Your task to perform on an android device: When is my next appointment? Image 0: 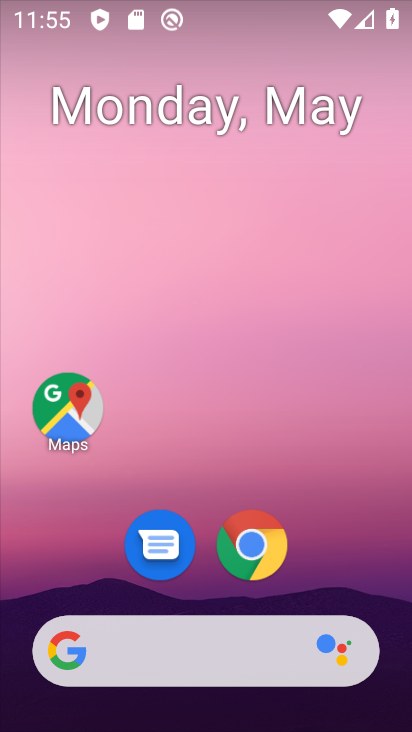
Step 0: drag from (349, 559) to (292, 170)
Your task to perform on an android device: When is my next appointment? Image 1: 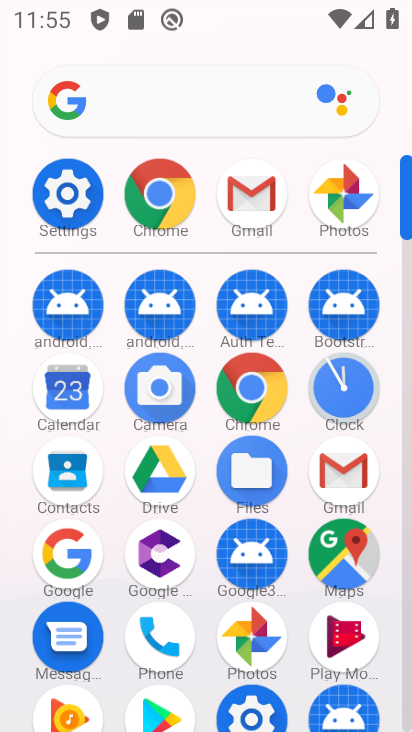
Step 1: click (61, 397)
Your task to perform on an android device: When is my next appointment? Image 2: 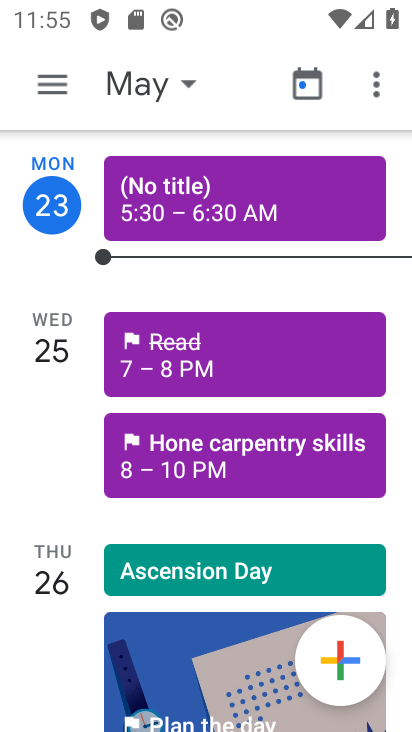
Step 2: task complete